Your task to perform on an android device: all mails in gmail Image 0: 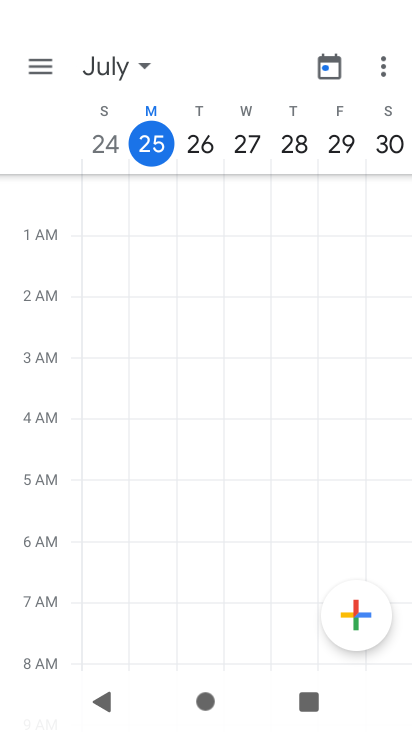
Step 0: press home button
Your task to perform on an android device: all mails in gmail Image 1: 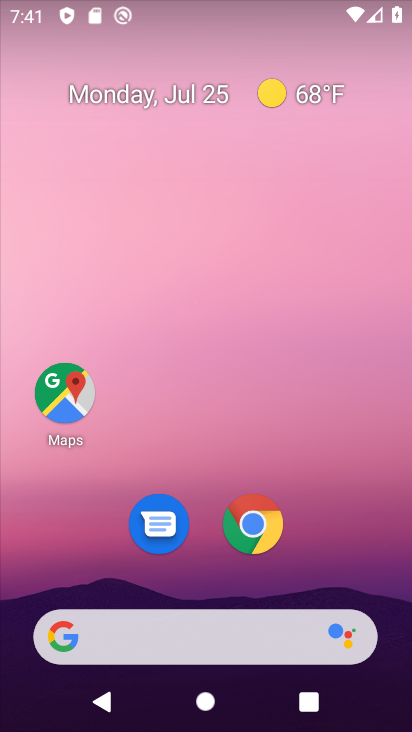
Step 1: drag from (317, 544) to (311, 115)
Your task to perform on an android device: all mails in gmail Image 2: 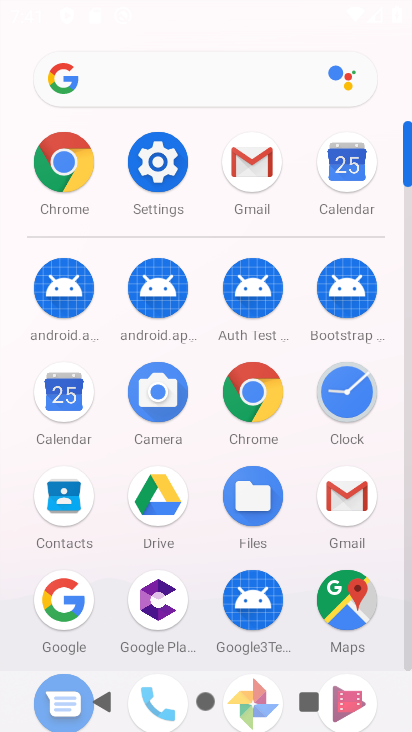
Step 2: click (247, 153)
Your task to perform on an android device: all mails in gmail Image 3: 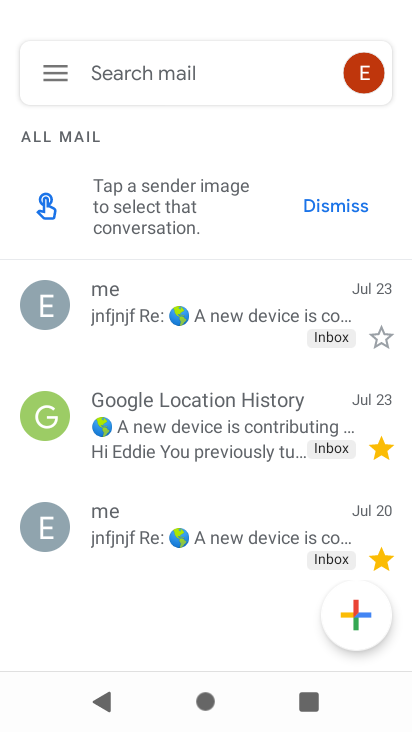
Step 3: task complete